Your task to perform on an android device: add a contact in the contacts app Image 0: 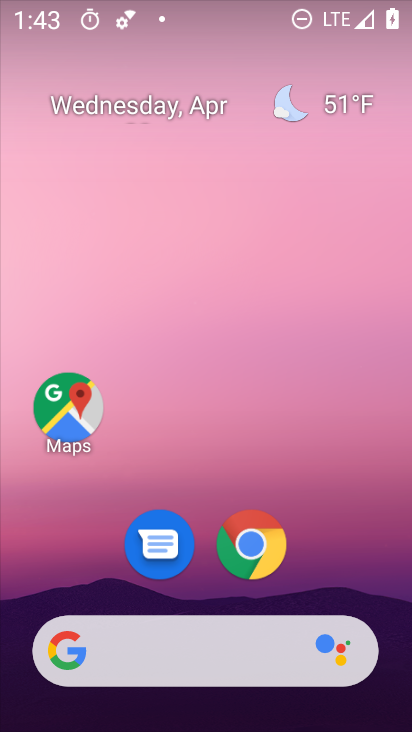
Step 0: drag from (334, 504) to (350, 116)
Your task to perform on an android device: add a contact in the contacts app Image 1: 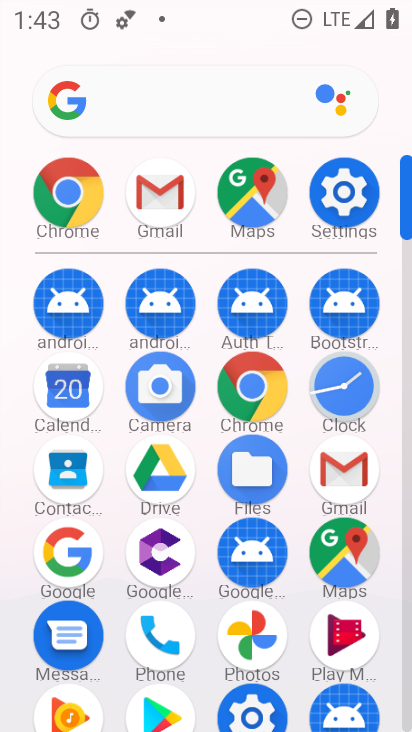
Step 1: click (57, 481)
Your task to perform on an android device: add a contact in the contacts app Image 2: 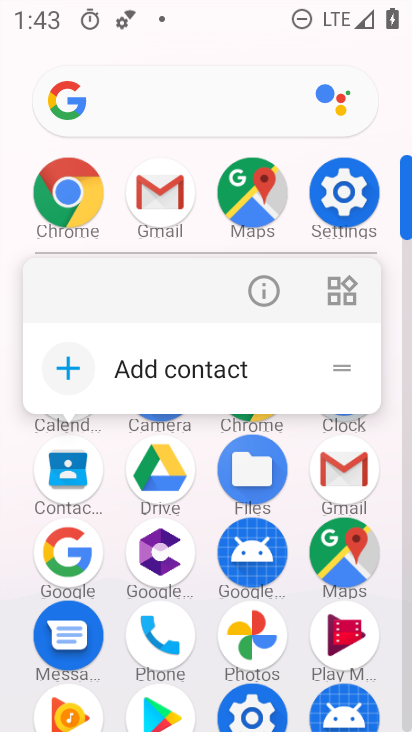
Step 2: click (67, 471)
Your task to perform on an android device: add a contact in the contacts app Image 3: 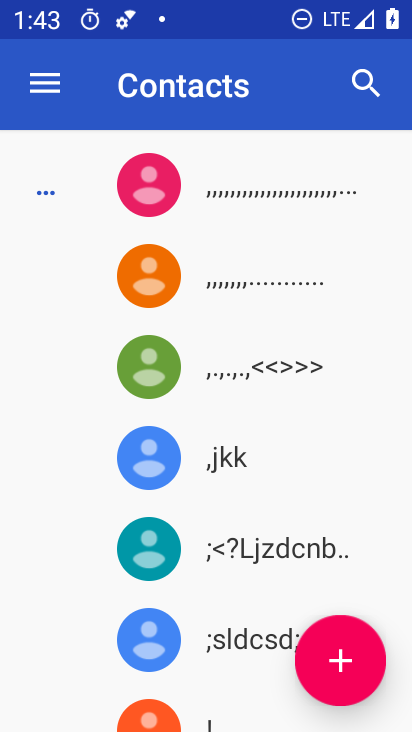
Step 3: click (365, 660)
Your task to perform on an android device: add a contact in the contacts app Image 4: 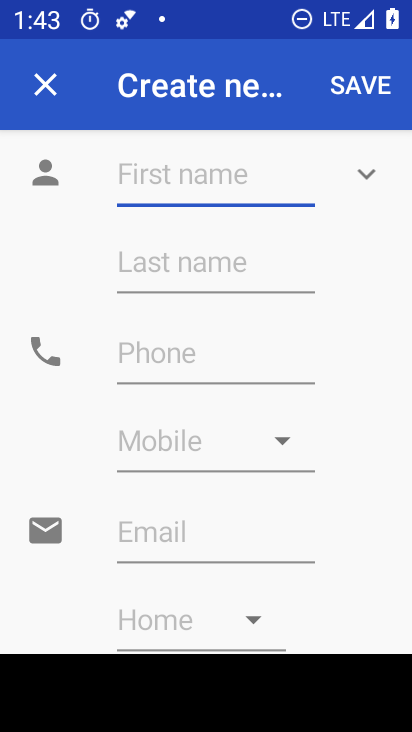
Step 4: type "jaan"
Your task to perform on an android device: add a contact in the contacts app Image 5: 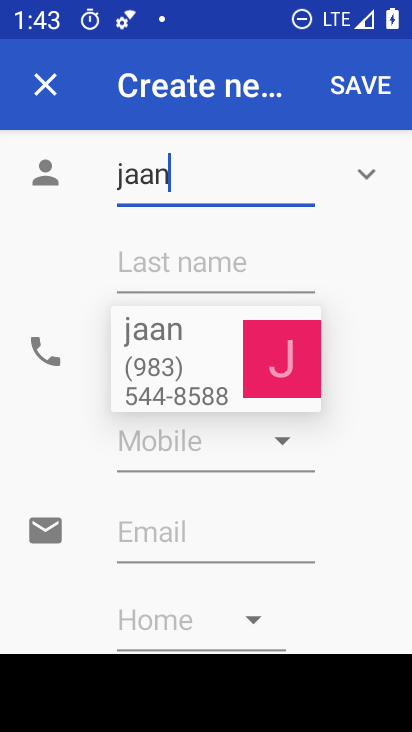
Step 5: click (394, 335)
Your task to perform on an android device: add a contact in the contacts app Image 6: 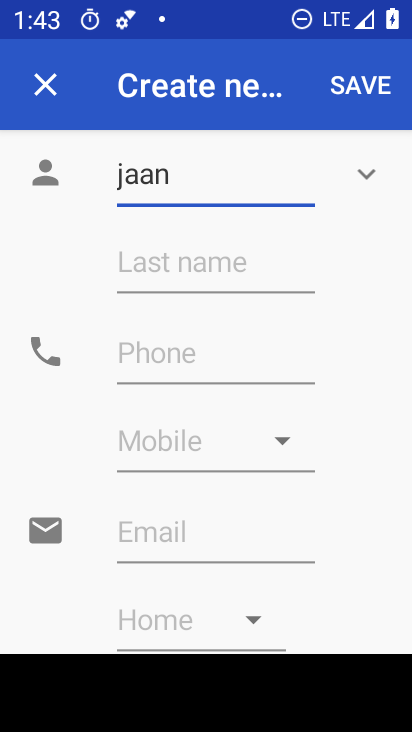
Step 6: click (278, 354)
Your task to perform on an android device: add a contact in the contacts app Image 7: 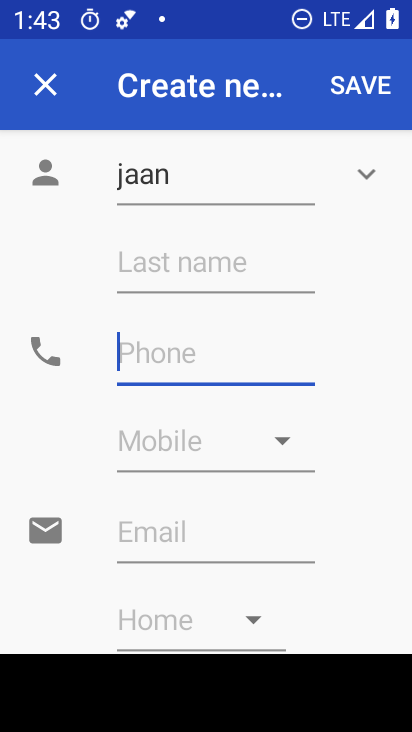
Step 7: type "1234567890"
Your task to perform on an android device: add a contact in the contacts app Image 8: 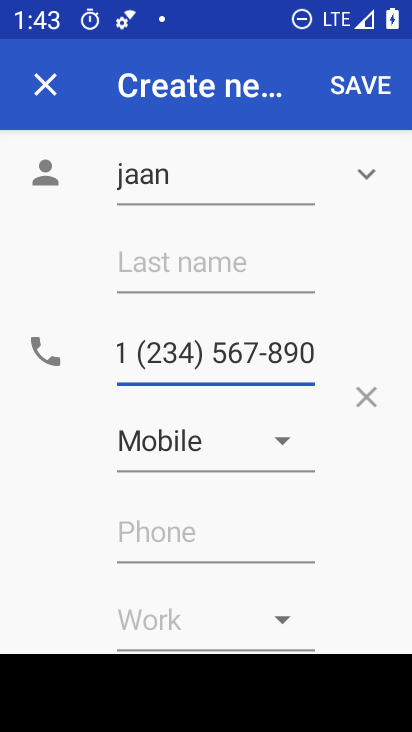
Step 8: click (370, 88)
Your task to perform on an android device: add a contact in the contacts app Image 9: 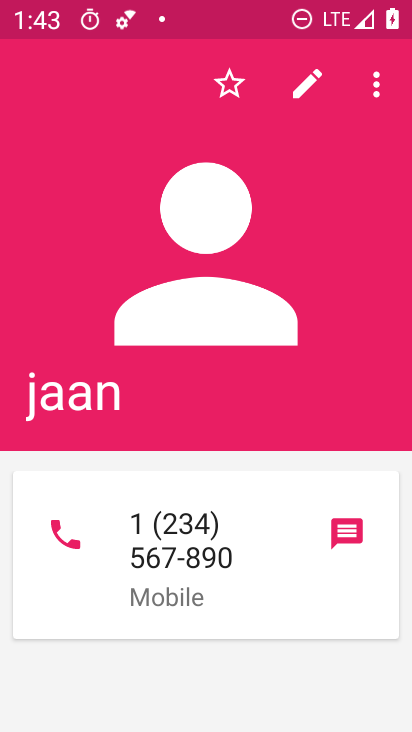
Step 9: task complete